Your task to perform on an android device: change the clock display to analog Image 0: 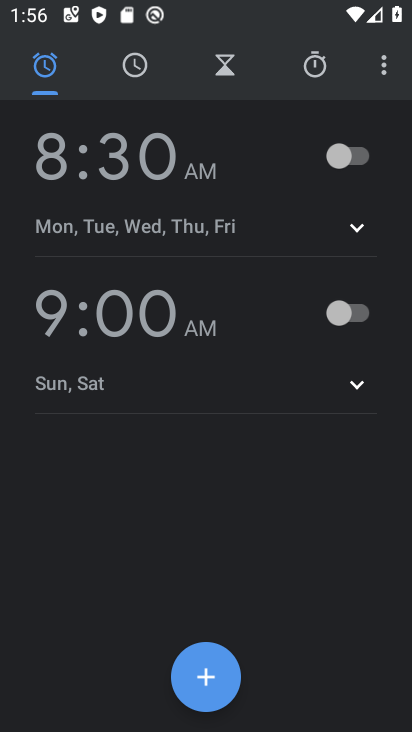
Step 0: press home button
Your task to perform on an android device: change the clock display to analog Image 1: 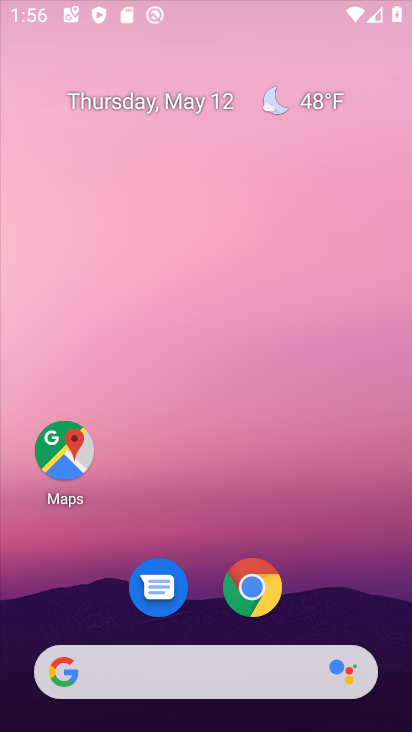
Step 1: drag from (221, 623) to (255, 190)
Your task to perform on an android device: change the clock display to analog Image 2: 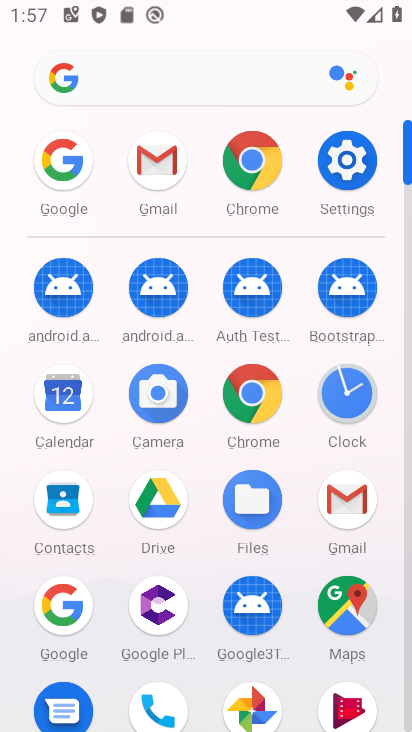
Step 2: click (344, 409)
Your task to perform on an android device: change the clock display to analog Image 3: 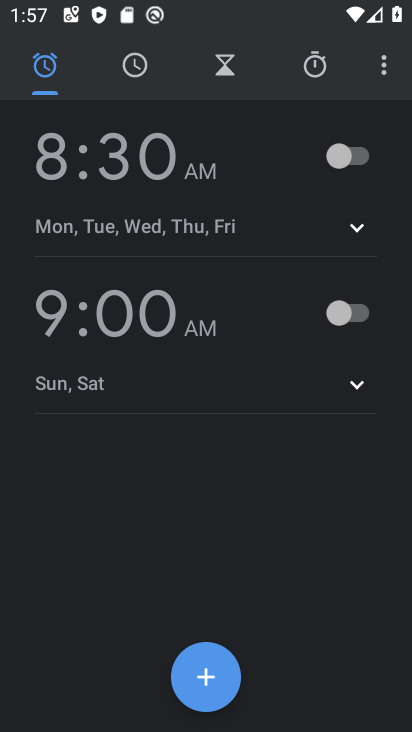
Step 3: click (377, 81)
Your task to perform on an android device: change the clock display to analog Image 4: 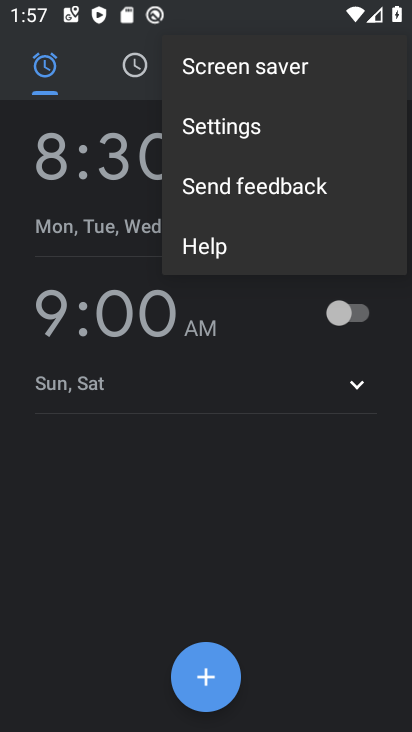
Step 4: click (253, 139)
Your task to perform on an android device: change the clock display to analog Image 5: 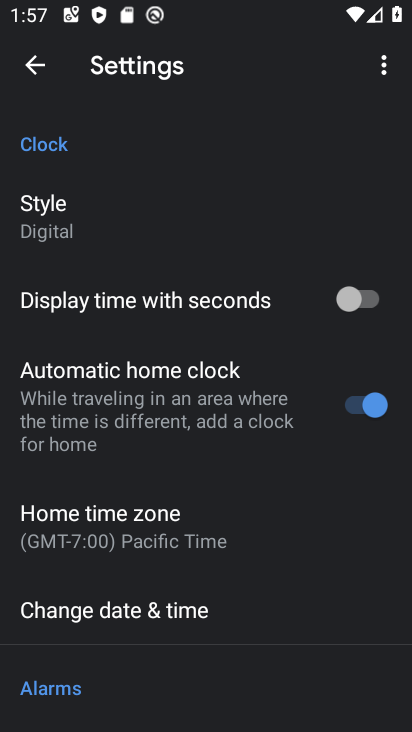
Step 5: click (179, 233)
Your task to perform on an android device: change the clock display to analog Image 6: 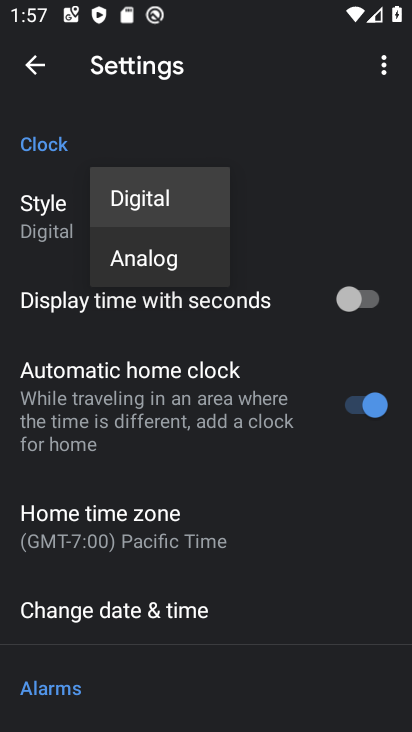
Step 6: click (152, 269)
Your task to perform on an android device: change the clock display to analog Image 7: 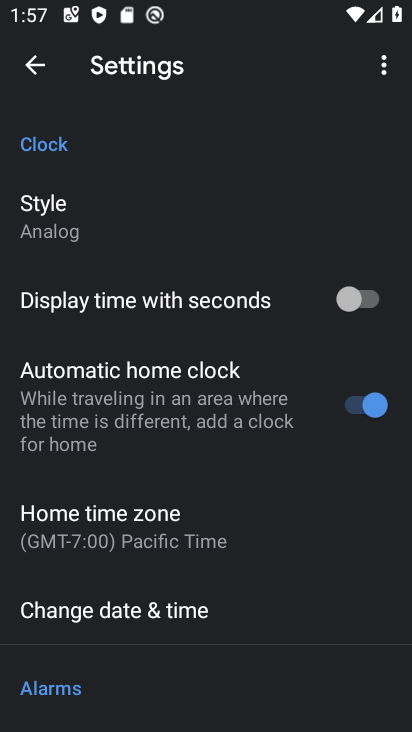
Step 7: task complete